Your task to perform on an android device: install app "ZOOM Cloud Meetings" Image 0: 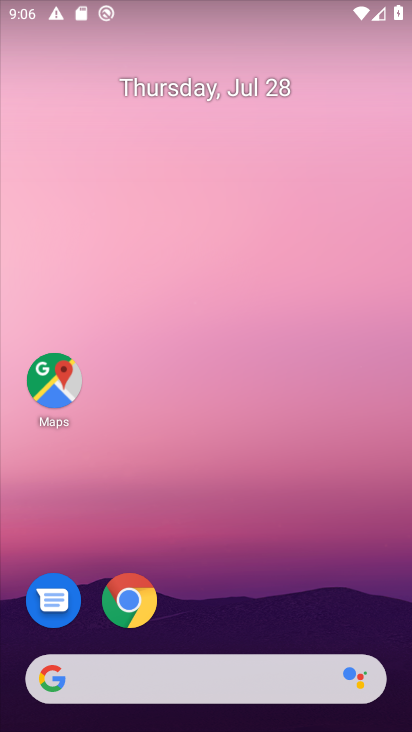
Step 0: drag from (263, 637) to (291, 5)
Your task to perform on an android device: install app "ZOOM Cloud Meetings" Image 1: 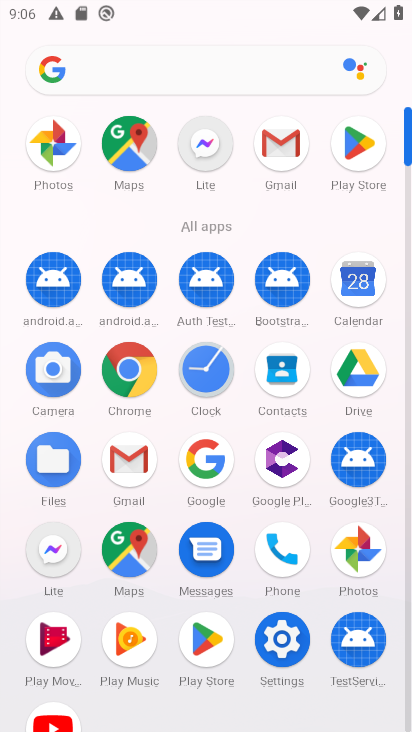
Step 1: click (362, 147)
Your task to perform on an android device: install app "ZOOM Cloud Meetings" Image 2: 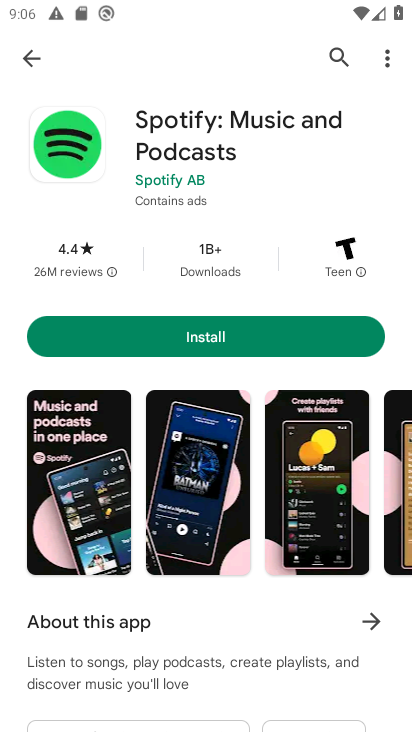
Step 2: click (331, 56)
Your task to perform on an android device: install app "ZOOM Cloud Meetings" Image 3: 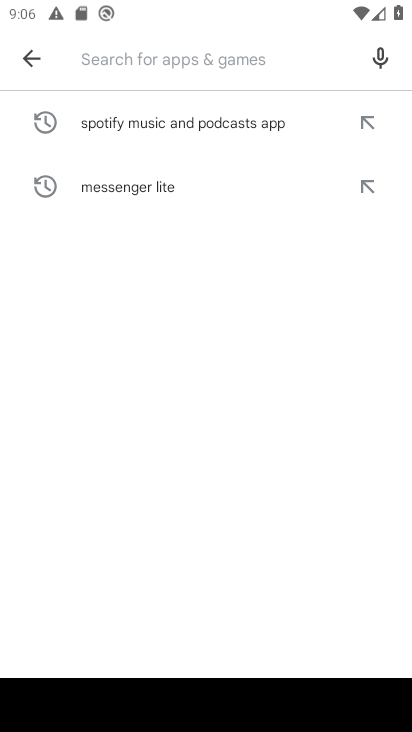
Step 3: type "ZOOM Cloud Meetings"
Your task to perform on an android device: install app "ZOOM Cloud Meetings" Image 4: 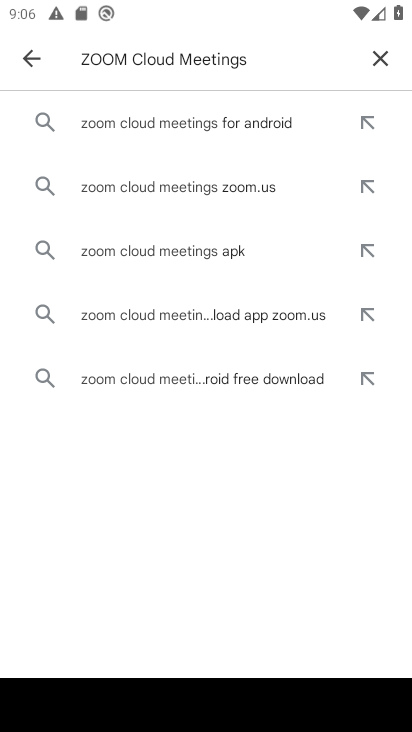
Step 4: click (111, 127)
Your task to perform on an android device: install app "ZOOM Cloud Meetings" Image 5: 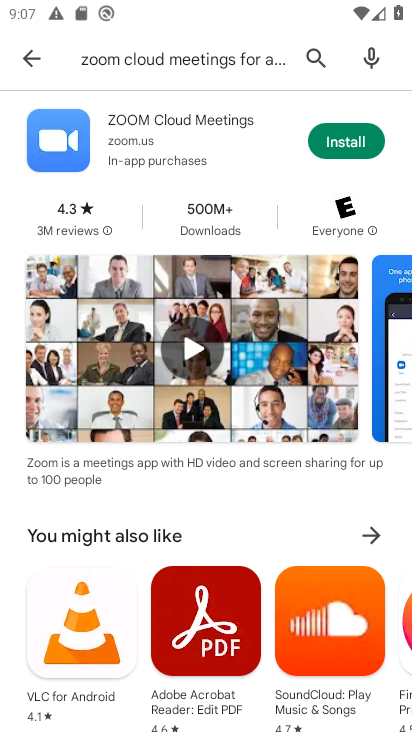
Step 5: click (339, 143)
Your task to perform on an android device: install app "ZOOM Cloud Meetings" Image 6: 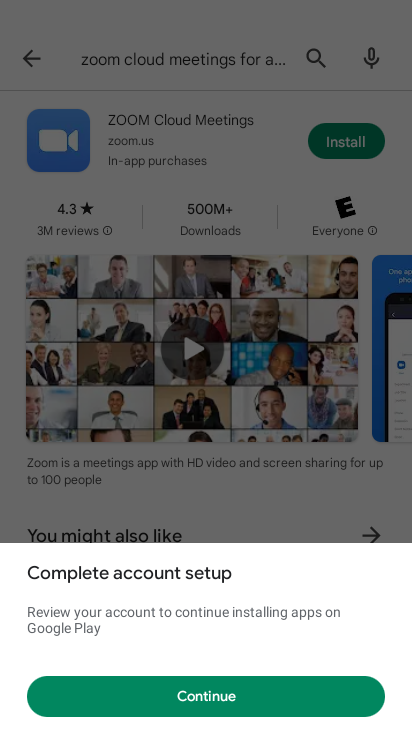
Step 6: task complete